Your task to perform on an android device: Open Google Maps Image 0: 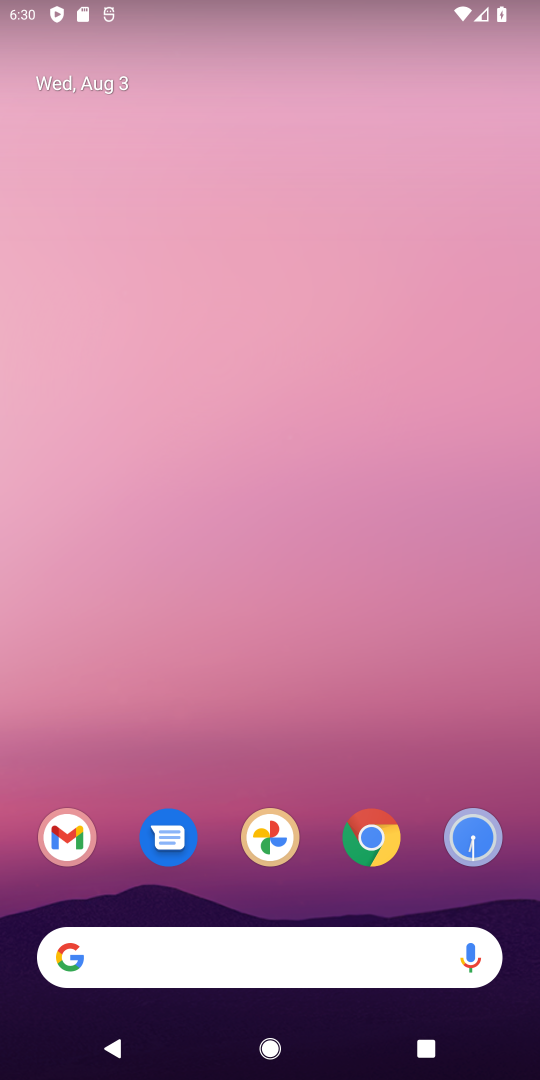
Step 0: press home button
Your task to perform on an android device: Open Google Maps Image 1: 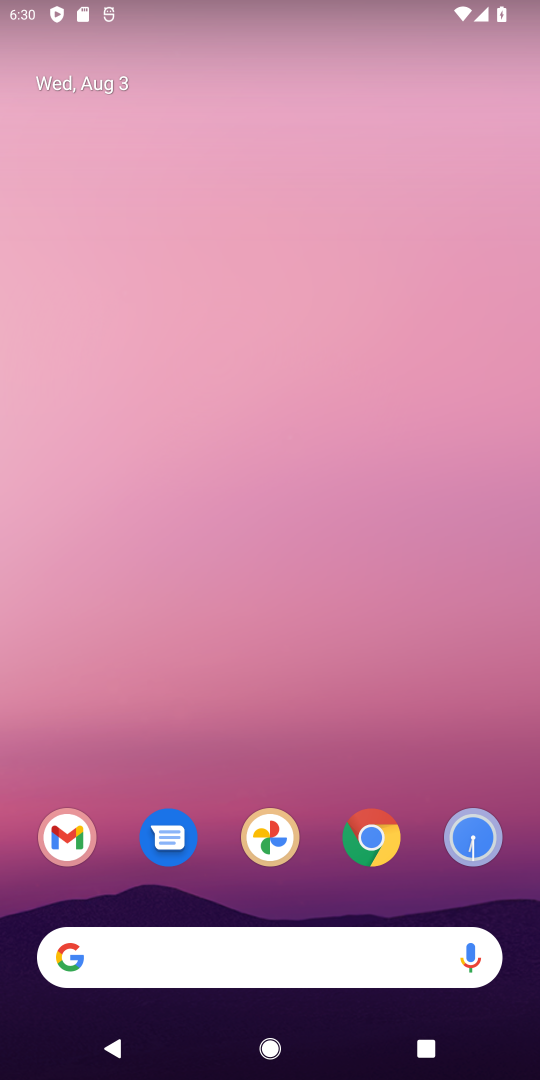
Step 1: press home button
Your task to perform on an android device: Open Google Maps Image 2: 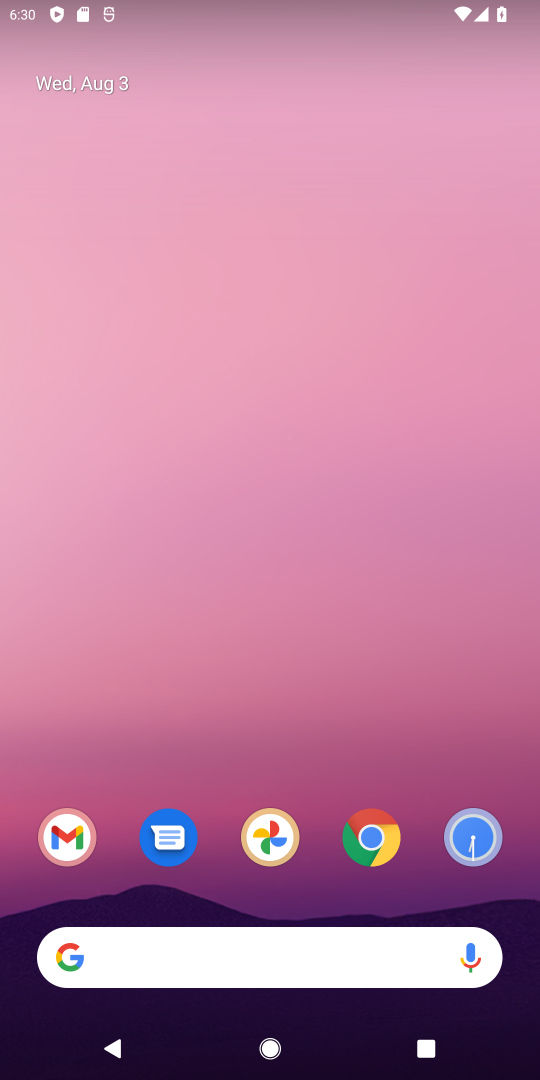
Step 2: drag from (405, 738) to (477, 542)
Your task to perform on an android device: Open Google Maps Image 3: 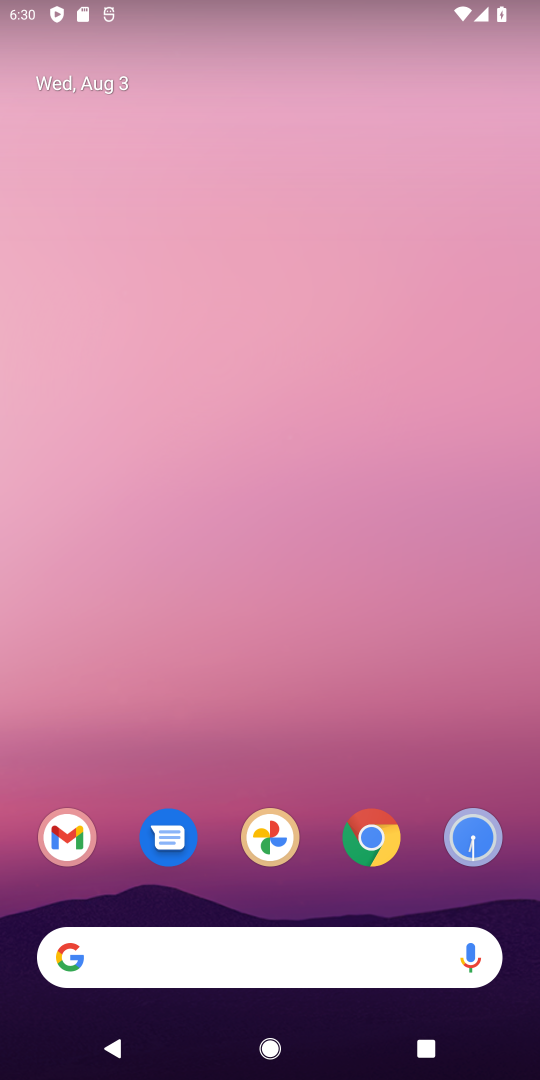
Step 3: drag from (252, 653) to (308, 50)
Your task to perform on an android device: Open Google Maps Image 4: 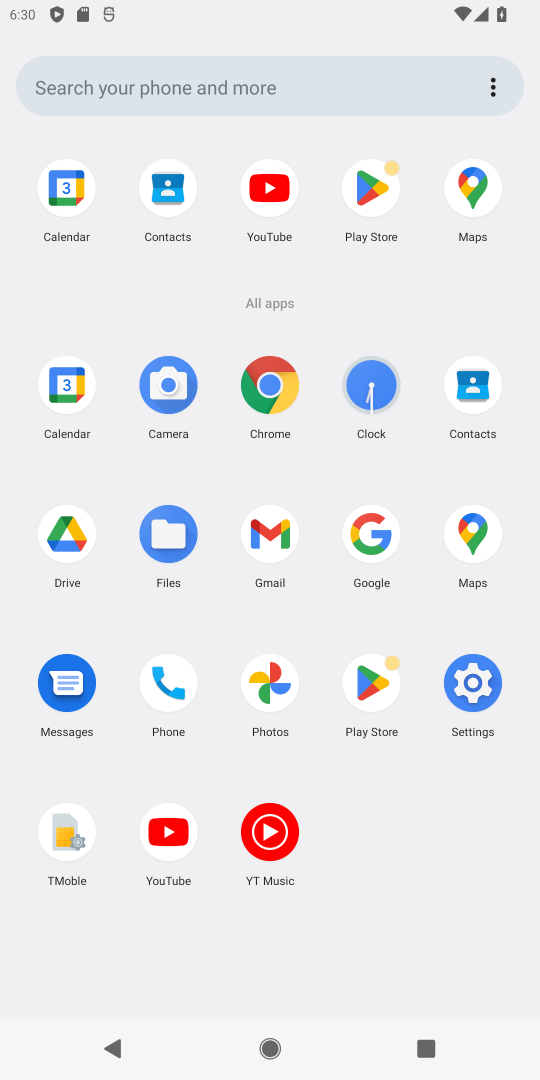
Step 4: click (478, 178)
Your task to perform on an android device: Open Google Maps Image 5: 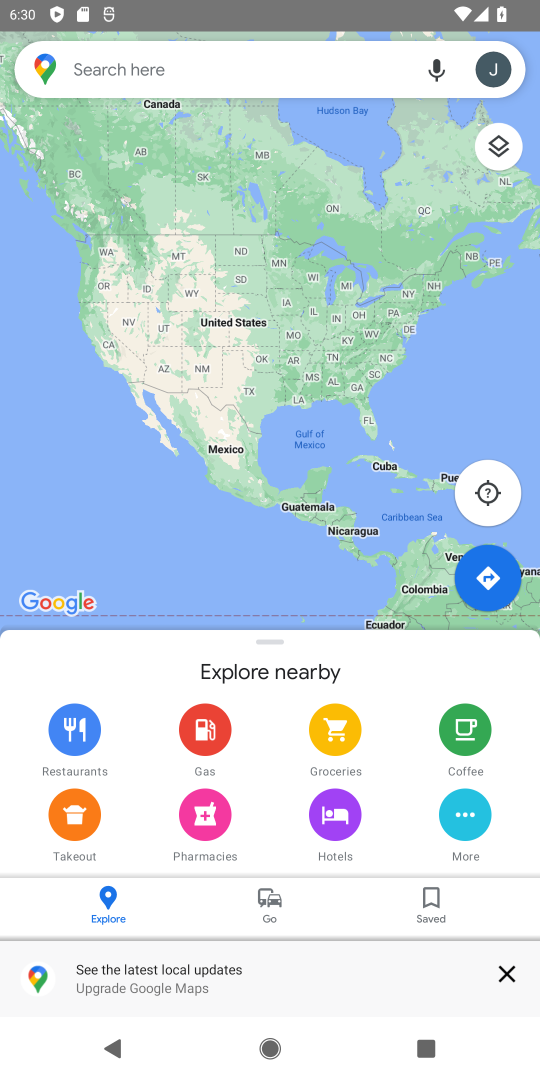
Step 5: task complete